Your task to perform on an android device: Open Maps and search for coffee Image 0: 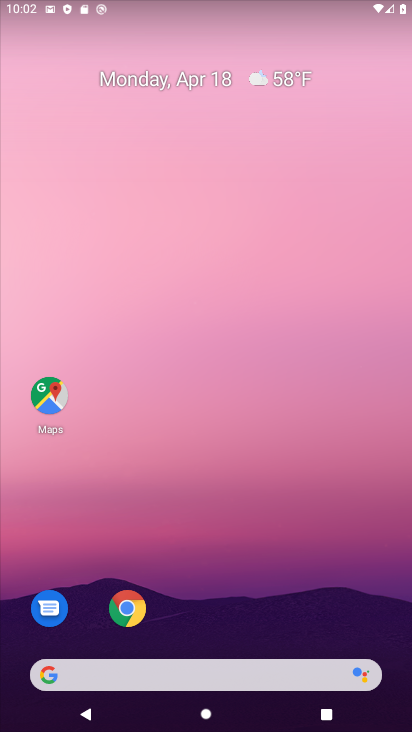
Step 0: drag from (342, 589) to (282, 177)
Your task to perform on an android device: Open Maps and search for coffee Image 1: 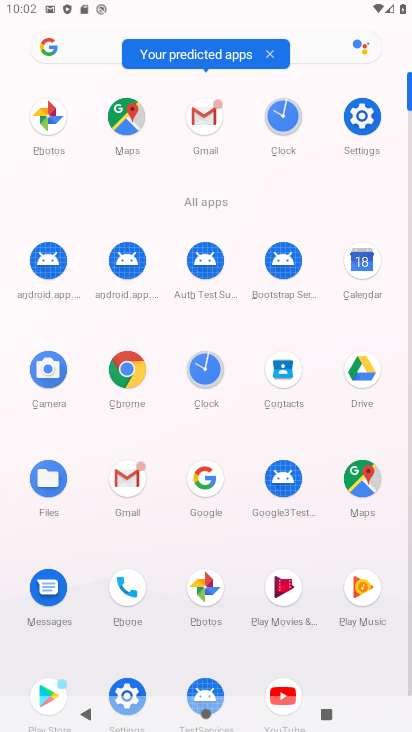
Step 1: click (129, 121)
Your task to perform on an android device: Open Maps and search for coffee Image 2: 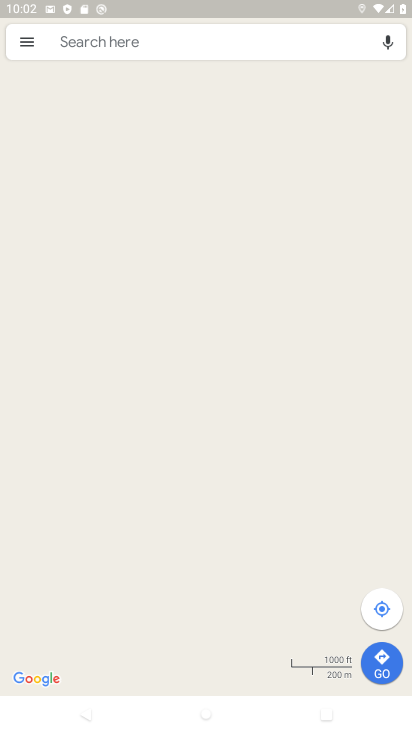
Step 2: click (215, 38)
Your task to perform on an android device: Open Maps and search for coffee Image 3: 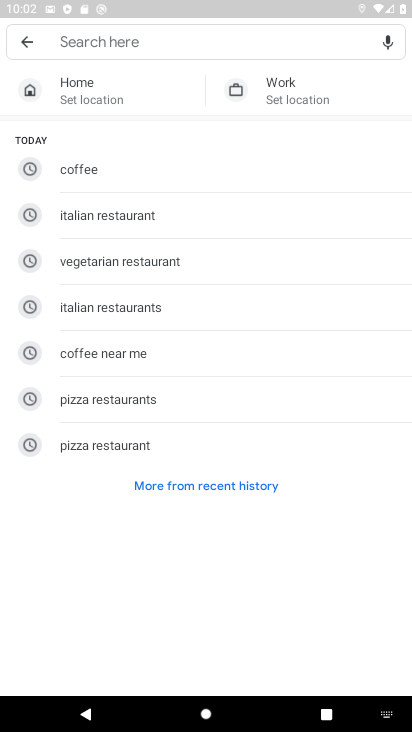
Step 3: type "coffee"
Your task to perform on an android device: Open Maps and search for coffee Image 4: 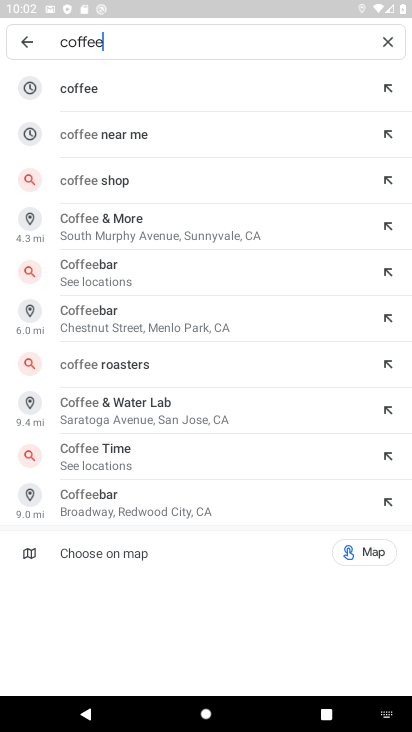
Step 4: click (137, 92)
Your task to perform on an android device: Open Maps and search for coffee Image 5: 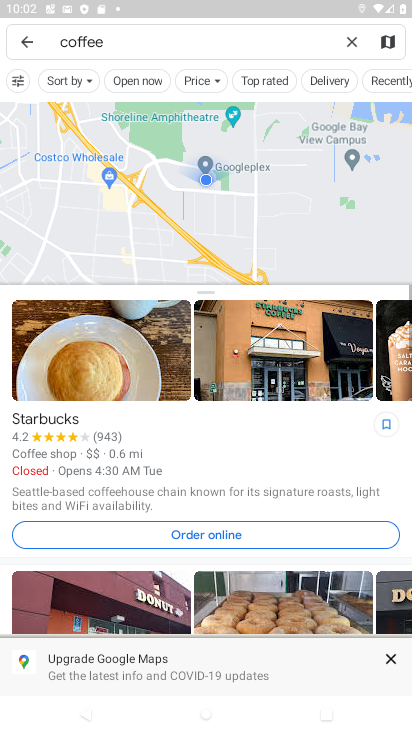
Step 5: task complete